Your task to perform on an android device: Play the new Selena Gomez video on YouTube Image 0: 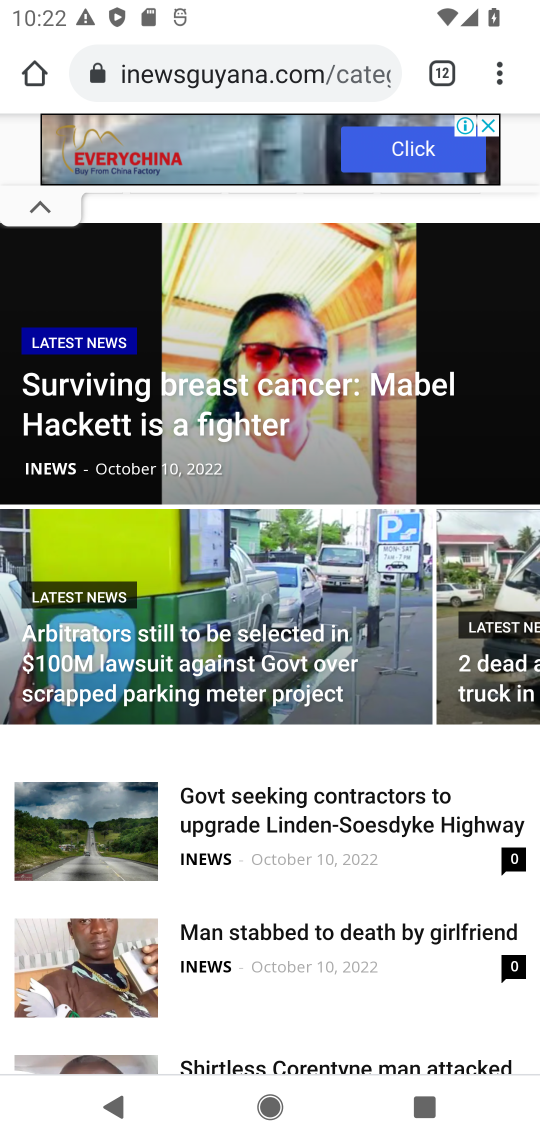
Step 0: press home button
Your task to perform on an android device: Play the new Selena Gomez video on YouTube Image 1: 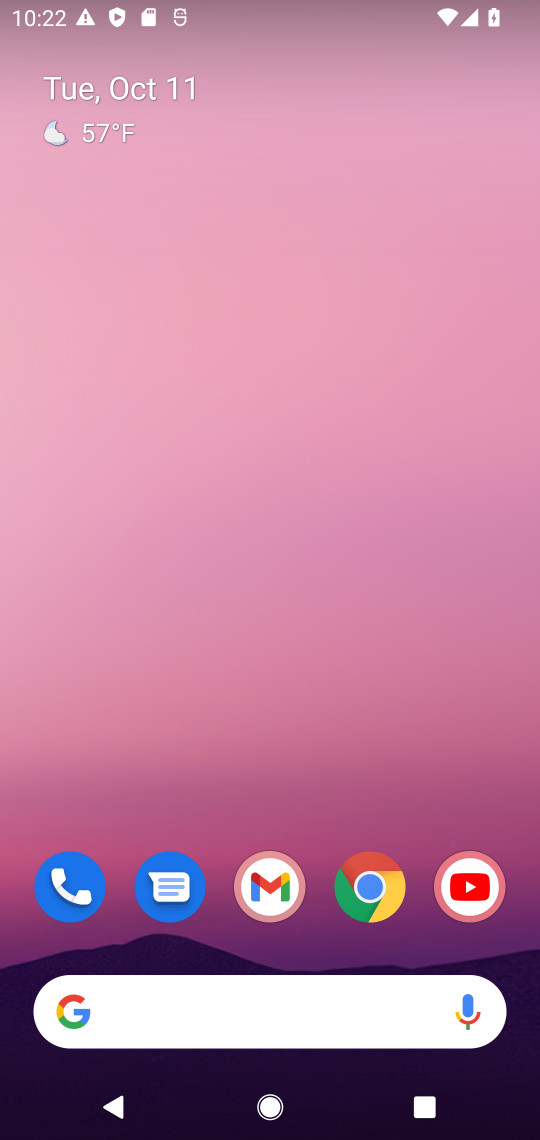
Step 1: drag from (473, 726) to (474, 60)
Your task to perform on an android device: Play the new Selena Gomez video on YouTube Image 2: 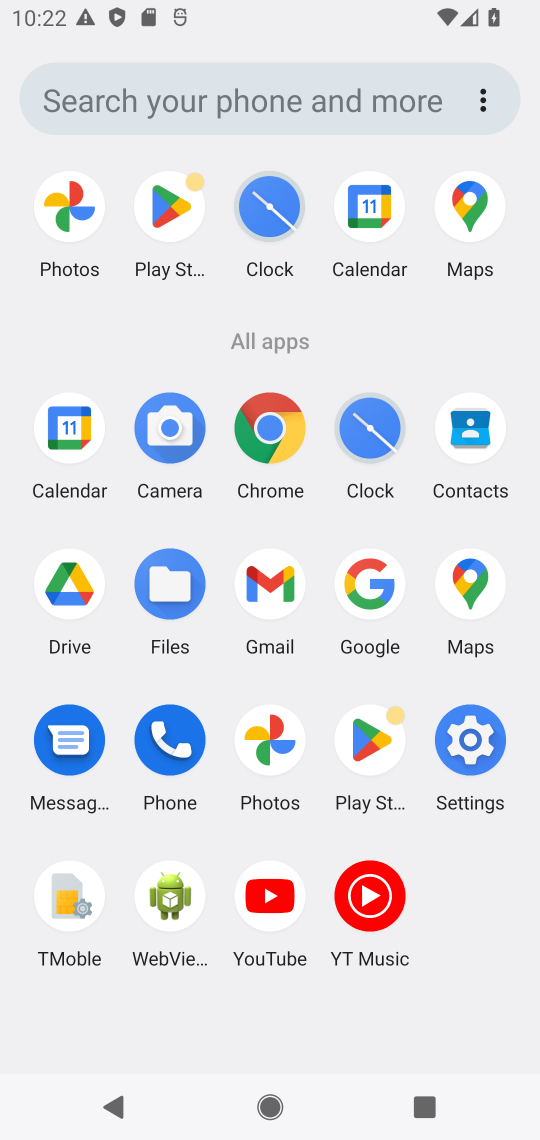
Step 2: click (277, 911)
Your task to perform on an android device: Play the new Selena Gomez video on YouTube Image 3: 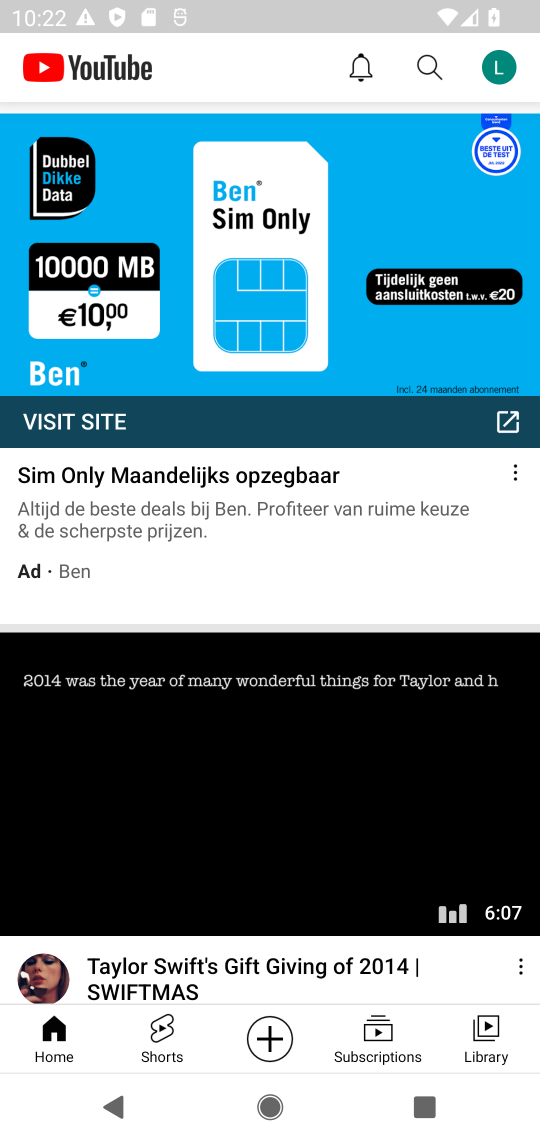
Step 3: click (422, 52)
Your task to perform on an android device: Play the new Selena Gomez video on YouTube Image 4: 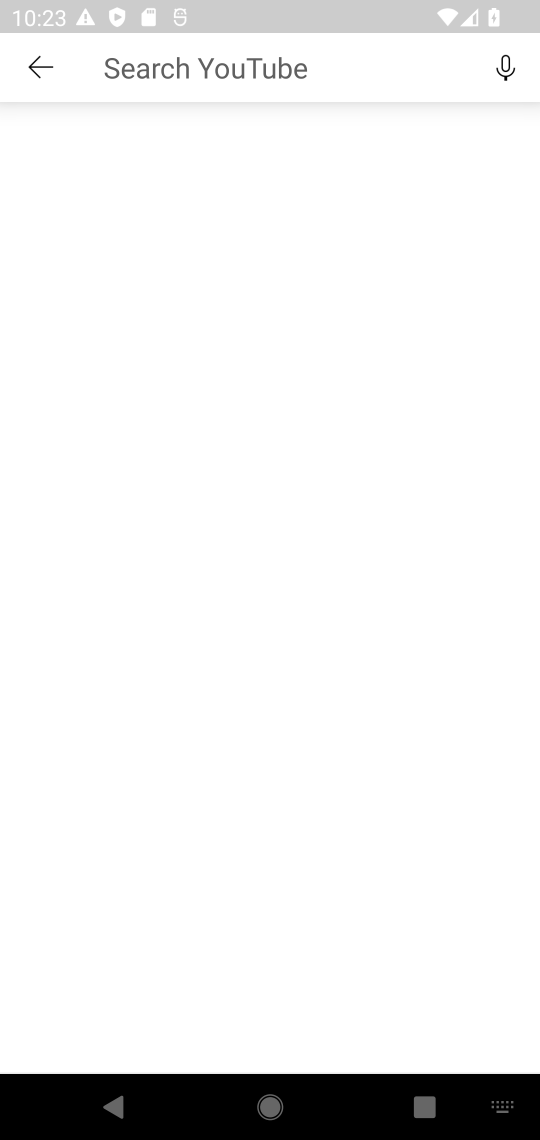
Step 4: press enter
Your task to perform on an android device: Play the new Selena Gomez video on YouTube Image 5: 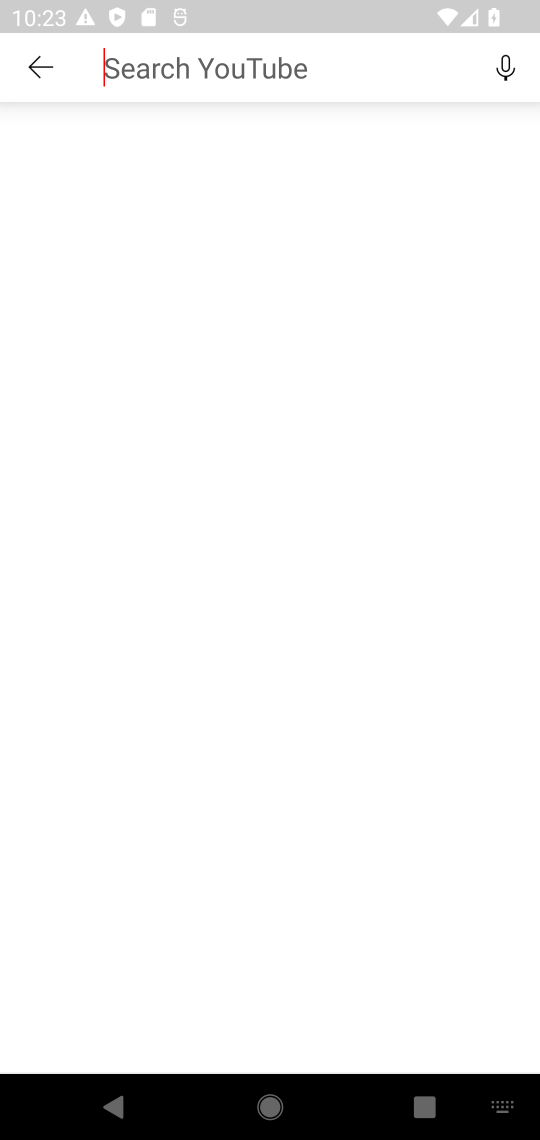
Step 5: type "Selena Gomez video"
Your task to perform on an android device: Play the new Selena Gomez video on YouTube Image 6: 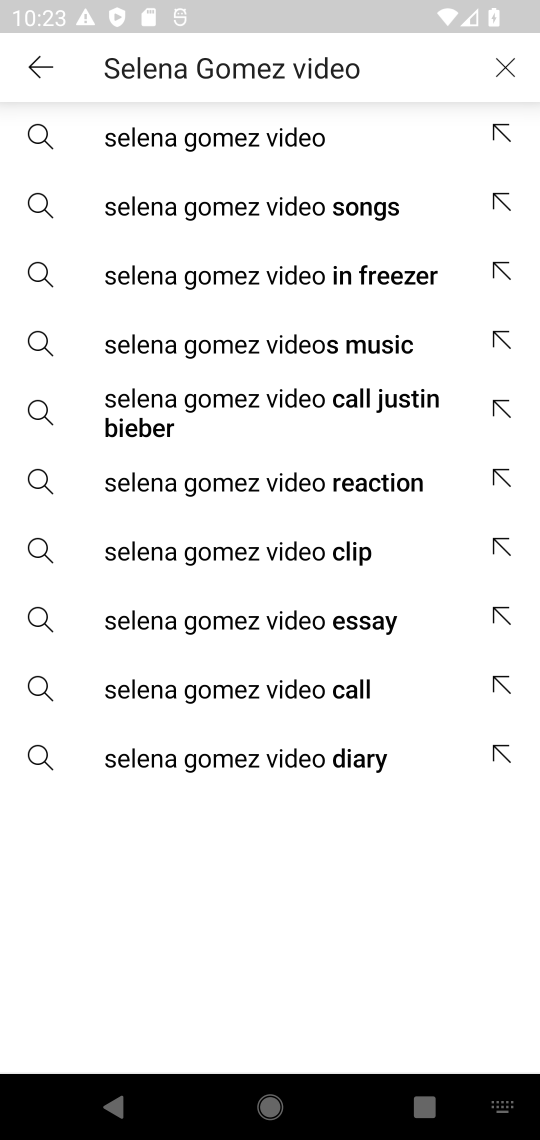
Step 6: press enter
Your task to perform on an android device: Play the new Selena Gomez video on YouTube Image 7: 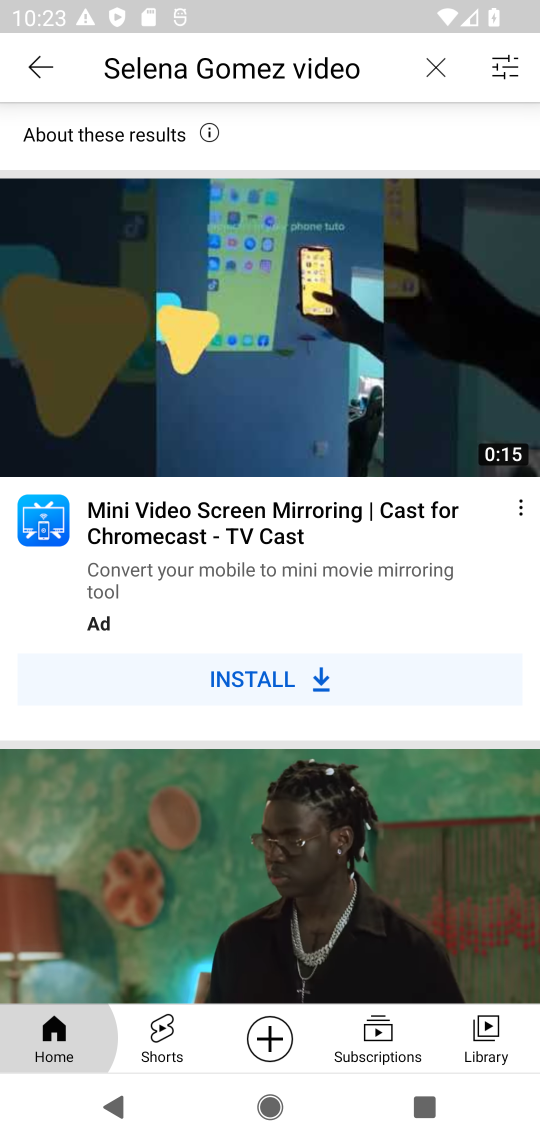
Step 7: drag from (359, 850) to (362, 476)
Your task to perform on an android device: Play the new Selena Gomez video on YouTube Image 8: 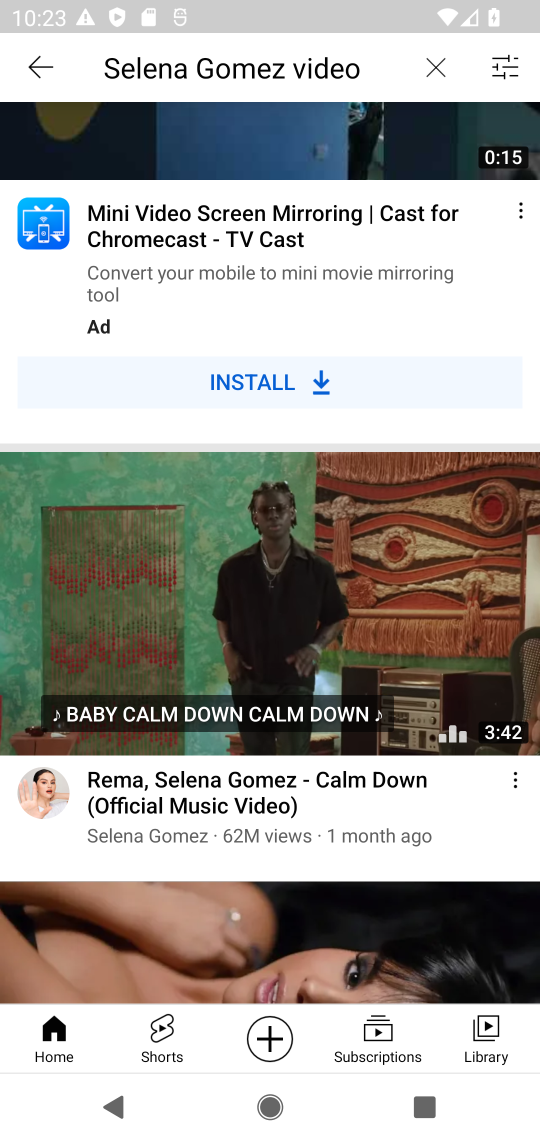
Step 8: click (296, 597)
Your task to perform on an android device: Play the new Selena Gomez video on YouTube Image 9: 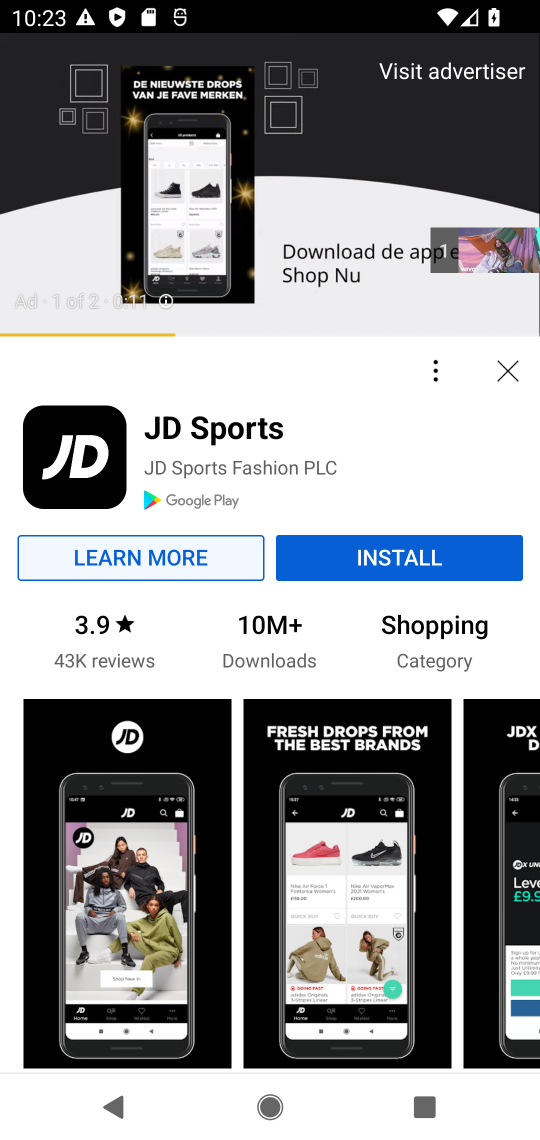
Step 9: click (500, 365)
Your task to perform on an android device: Play the new Selena Gomez video on YouTube Image 10: 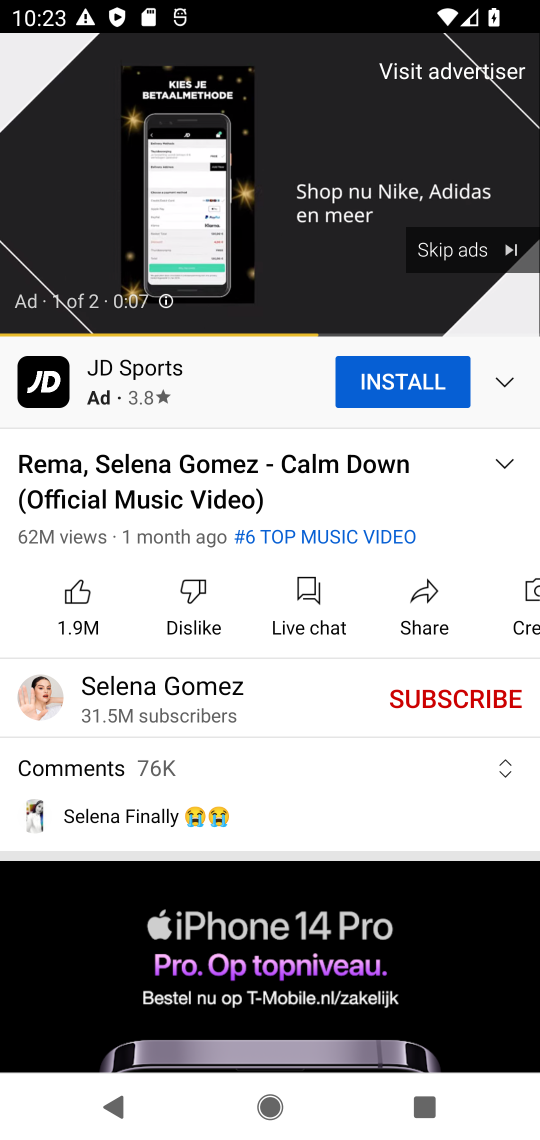
Step 10: click (490, 257)
Your task to perform on an android device: Play the new Selena Gomez video on YouTube Image 11: 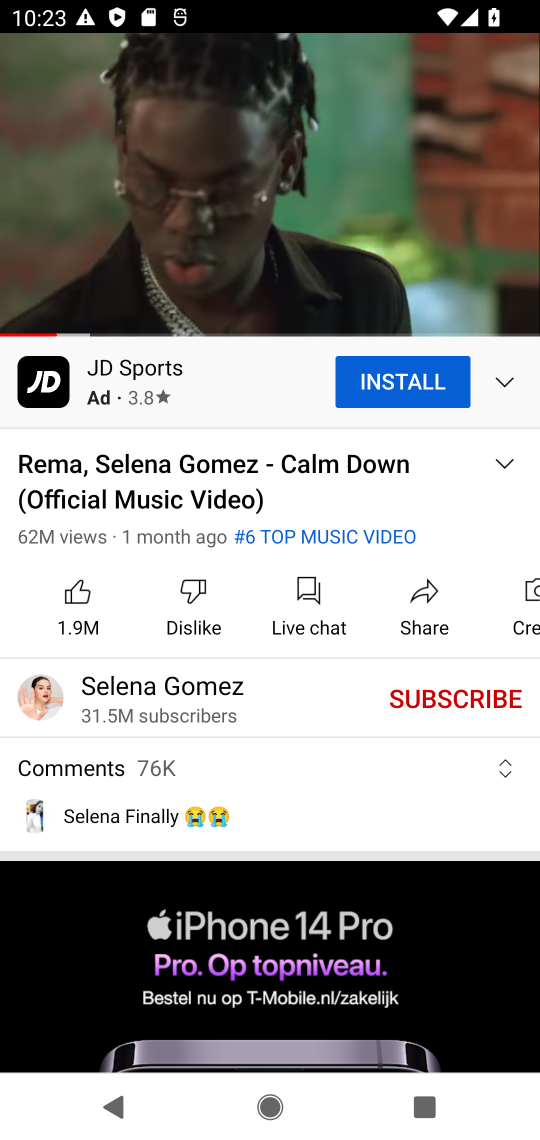
Step 11: task complete